Your task to perform on an android device: turn off notifications settings in the gmail app Image 0: 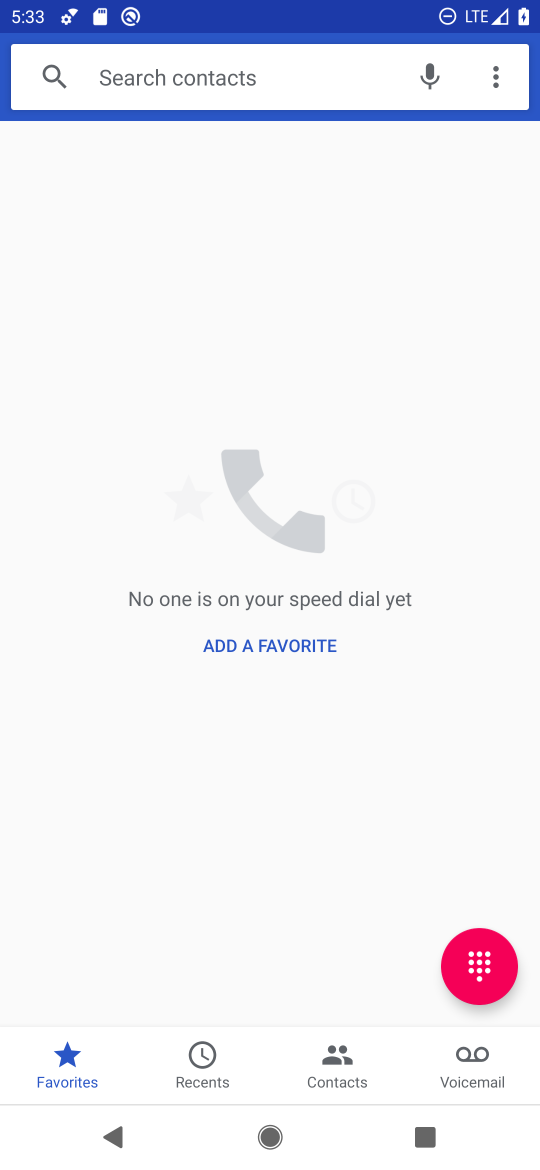
Step 0: press home button
Your task to perform on an android device: turn off notifications settings in the gmail app Image 1: 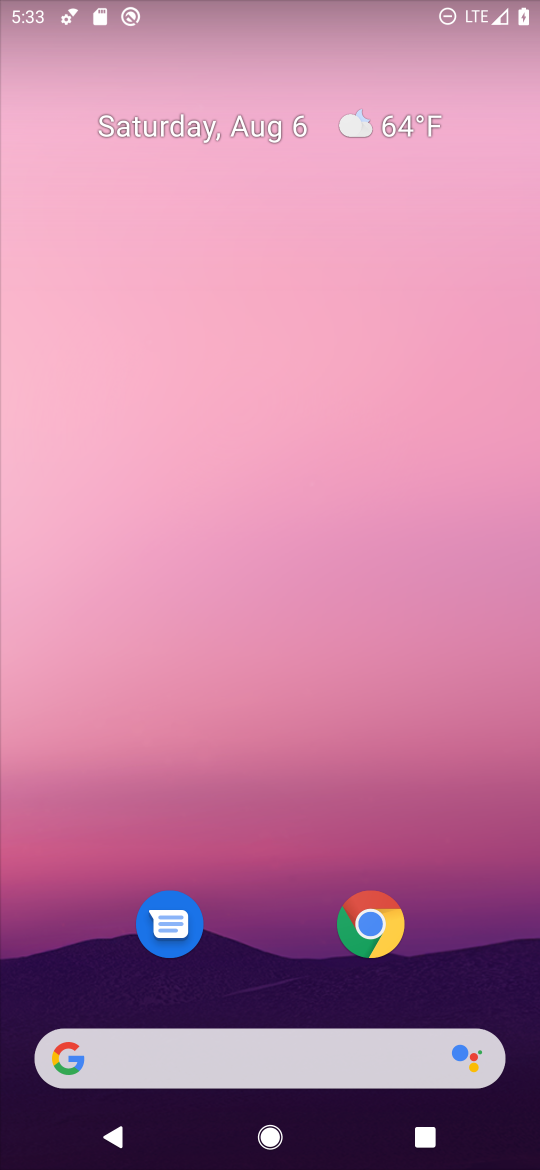
Step 1: drag from (257, 790) to (299, 80)
Your task to perform on an android device: turn off notifications settings in the gmail app Image 2: 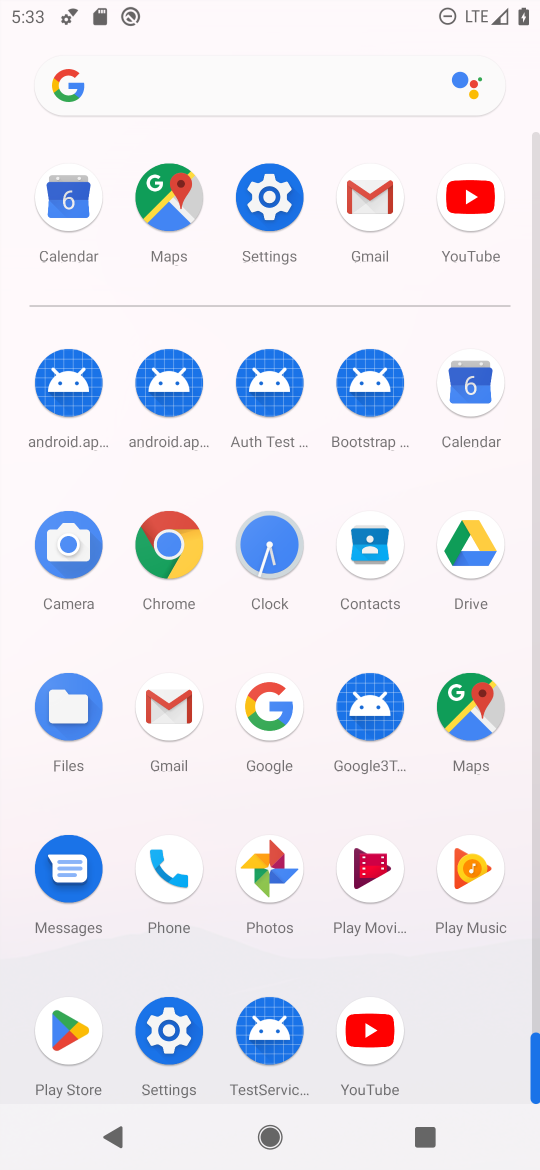
Step 2: click (369, 202)
Your task to perform on an android device: turn off notifications settings in the gmail app Image 3: 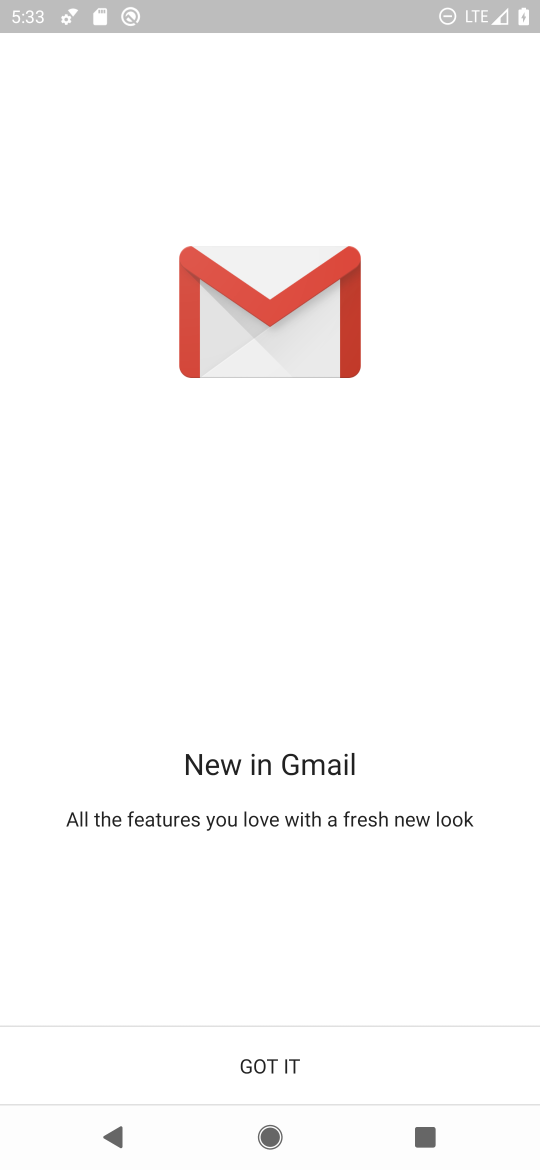
Step 3: click (265, 1058)
Your task to perform on an android device: turn off notifications settings in the gmail app Image 4: 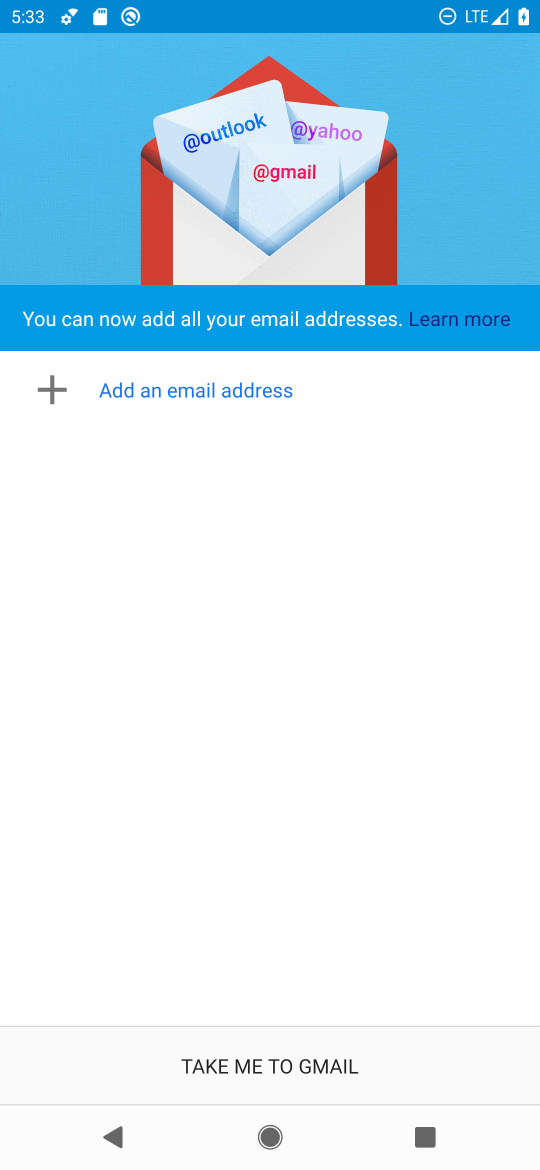
Step 4: click (267, 1049)
Your task to perform on an android device: turn off notifications settings in the gmail app Image 5: 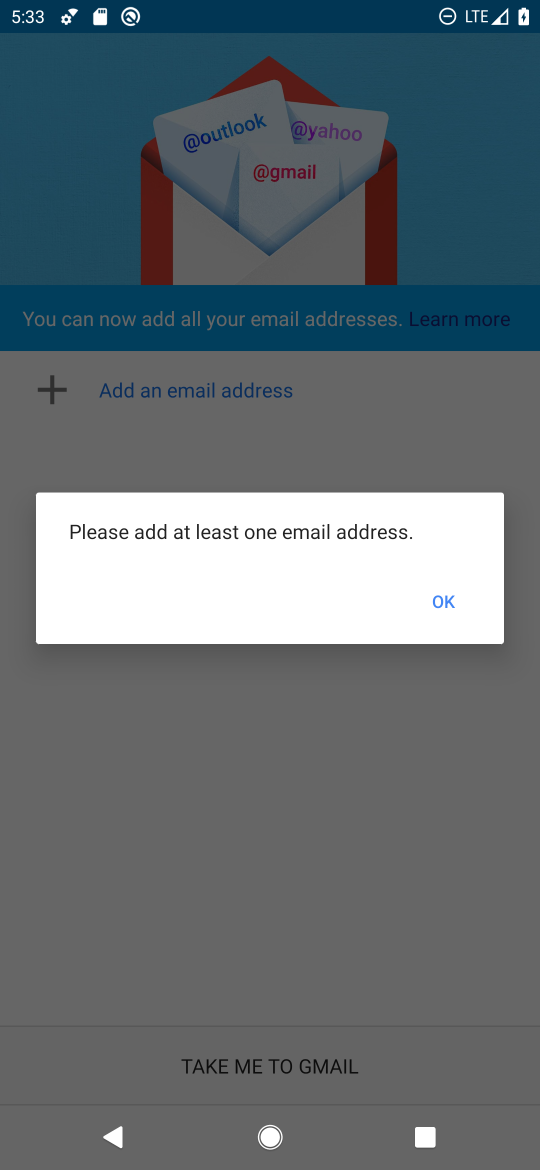
Step 5: click (431, 599)
Your task to perform on an android device: turn off notifications settings in the gmail app Image 6: 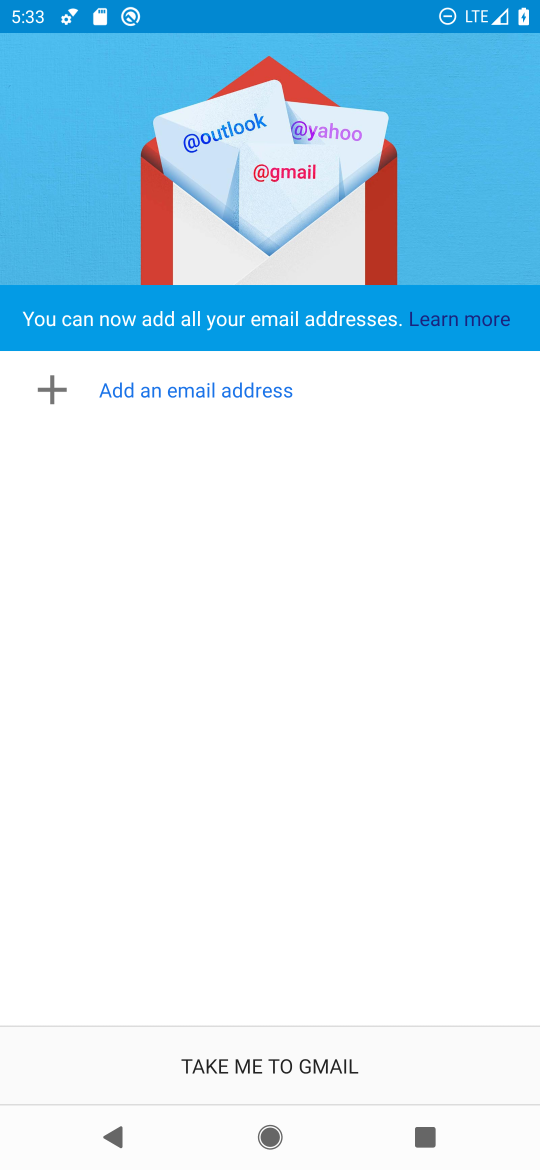
Step 6: task complete